Your task to perform on an android device: Open eBay Image 0: 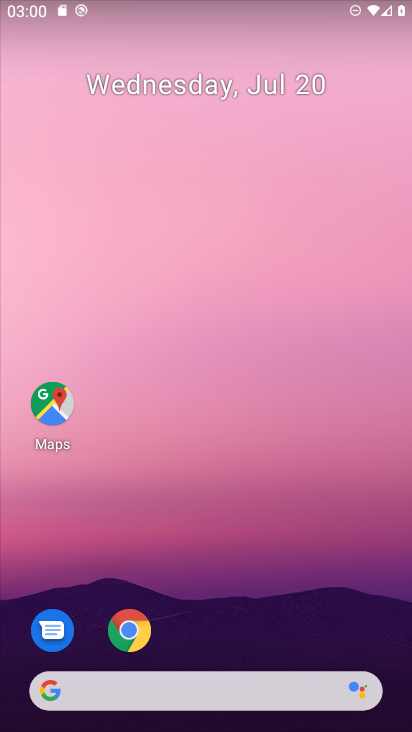
Step 0: drag from (354, 634) to (380, 95)
Your task to perform on an android device: Open eBay Image 1: 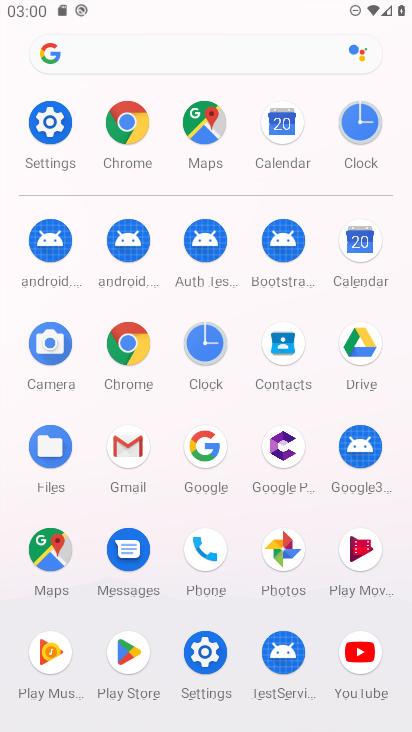
Step 1: click (125, 342)
Your task to perform on an android device: Open eBay Image 2: 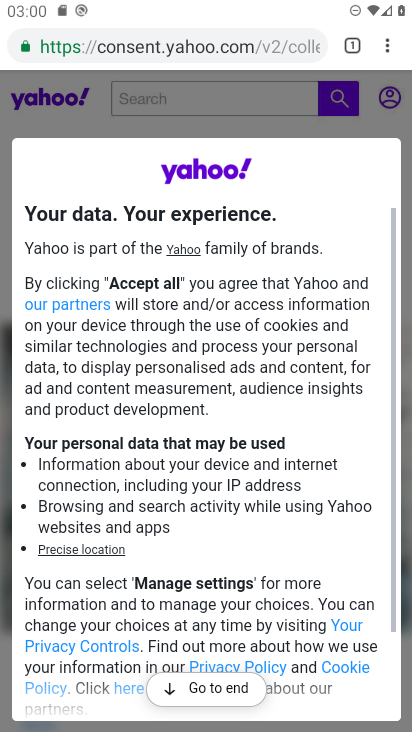
Step 2: click (268, 37)
Your task to perform on an android device: Open eBay Image 3: 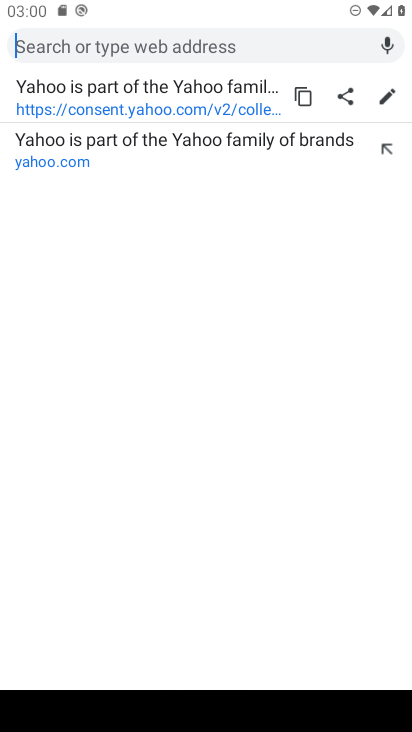
Step 3: type "ebay"
Your task to perform on an android device: Open eBay Image 4: 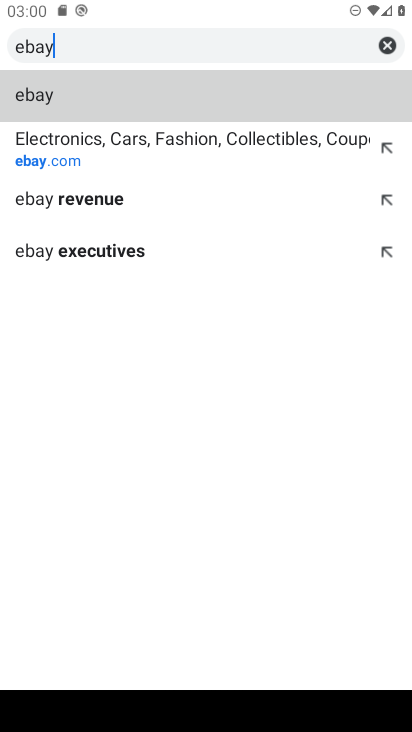
Step 4: click (251, 99)
Your task to perform on an android device: Open eBay Image 5: 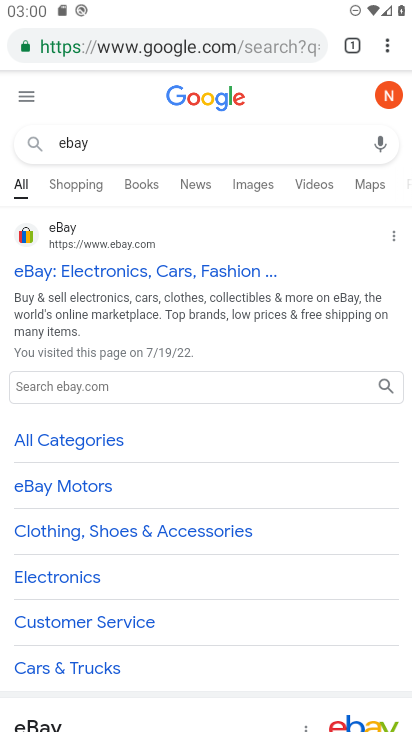
Step 5: task complete